Your task to perform on an android device: turn vacation reply on in the gmail app Image 0: 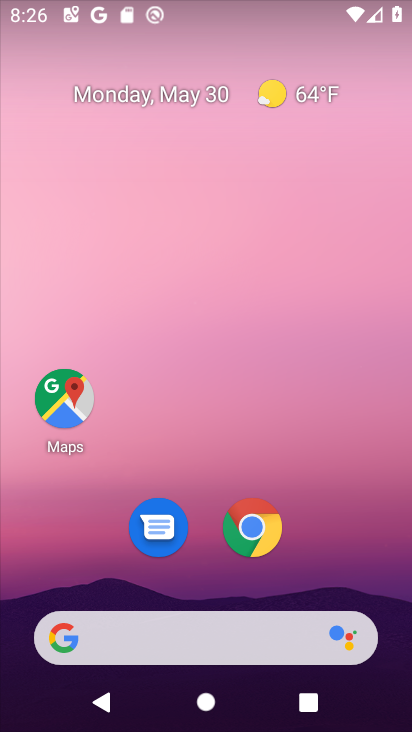
Step 0: drag from (293, 588) to (260, 201)
Your task to perform on an android device: turn vacation reply on in the gmail app Image 1: 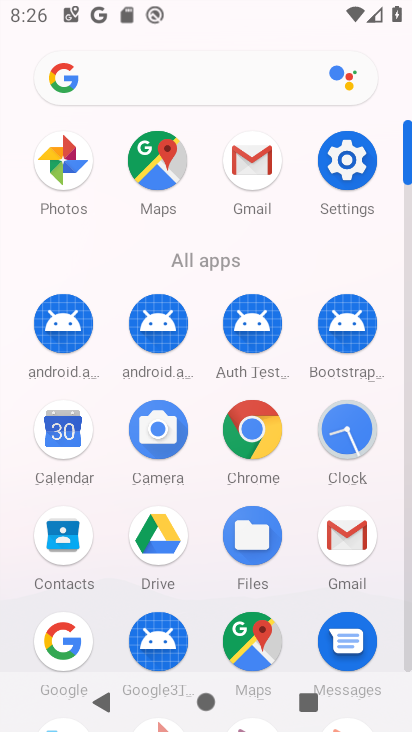
Step 1: click (350, 537)
Your task to perform on an android device: turn vacation reply on in the gmail app Image 2: 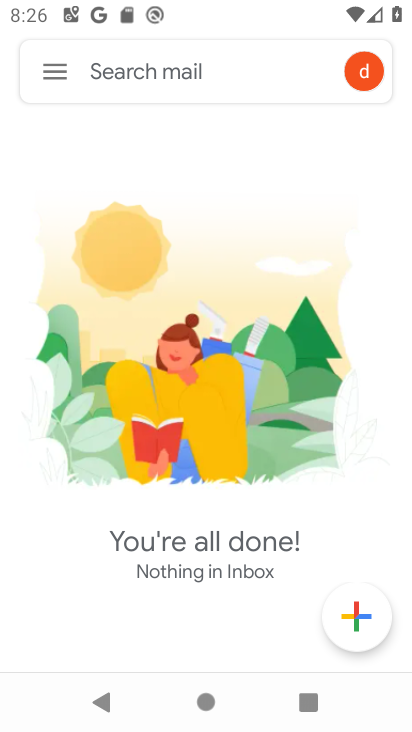
Step 2: click (46, 72)
Your task to perform on an android device: turn vacation reply on in the gmail app Image 3: 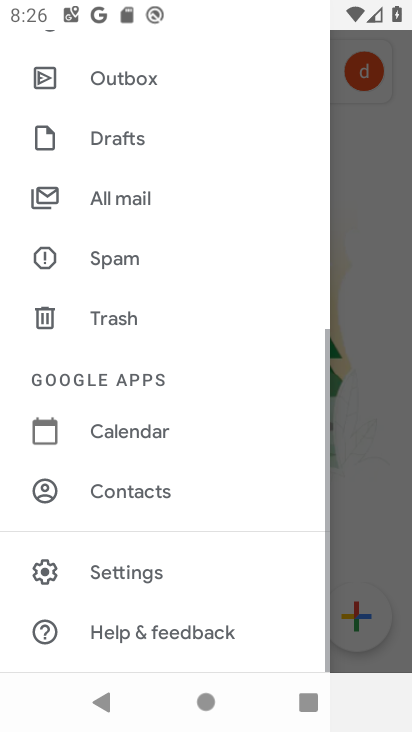
Step 3: click (160, 565)
Your task to perform on an android device: turn vacation reply on in the gmail app Image 4: 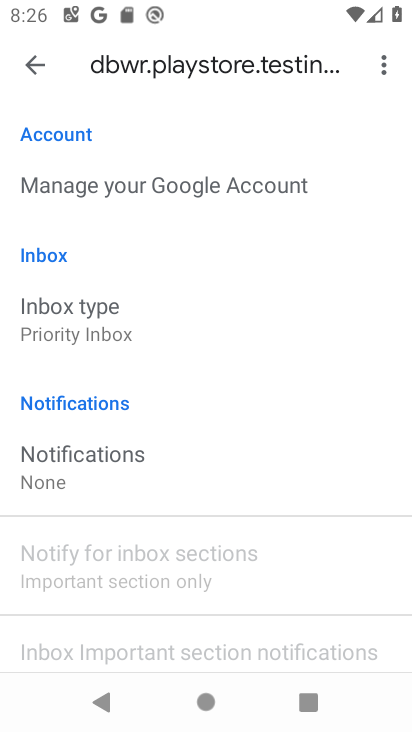
Step 4: drag from (159, 558) to (187, 244)
Your task to perform on an android device: turn vacation reply on in the gmail app Image 5: 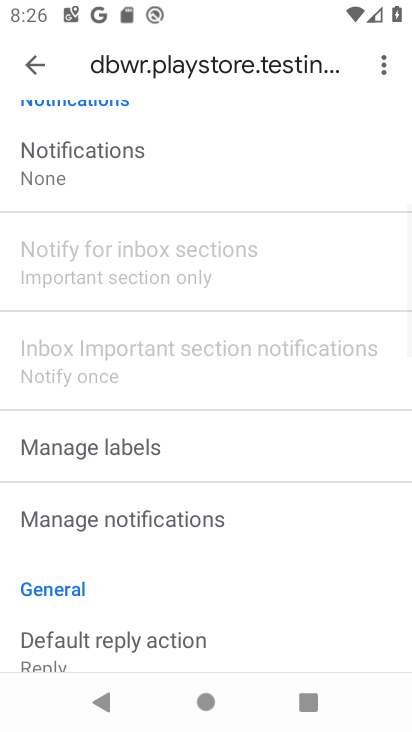
Step 5: drag from (171, 600) to (232, 224)
Your task to perform on an android device: turn vacation reply on in the gmail app Image 6: 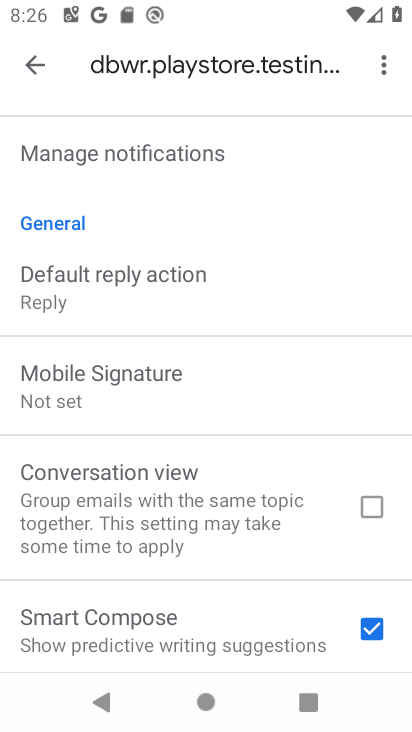
Step 6: drag from (234, 573) to (258, 313)
Your task to perform on an android device: turn vacation reply on in the gmail app Image 7: 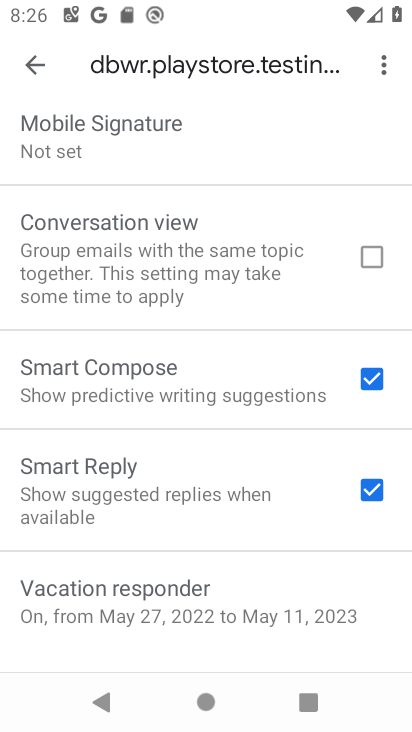
Step 7: click (193, 607)
Your task to perform on an android device: turn vacation reply on in the gmail app Image 8: 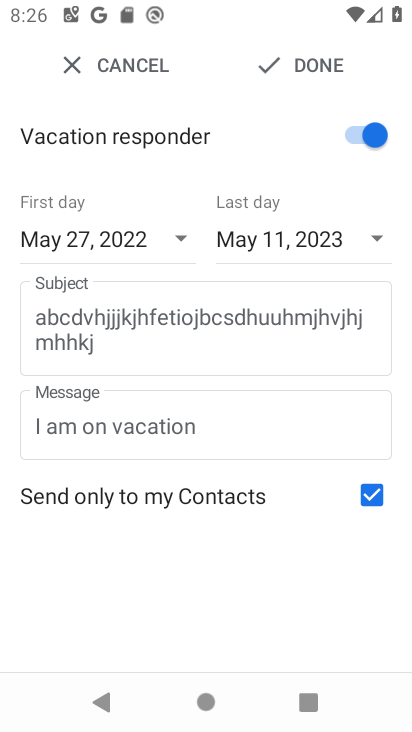
Step 8: task complete